Your task to perform on an android device: choose inbox layout in the gmail app Image 0: 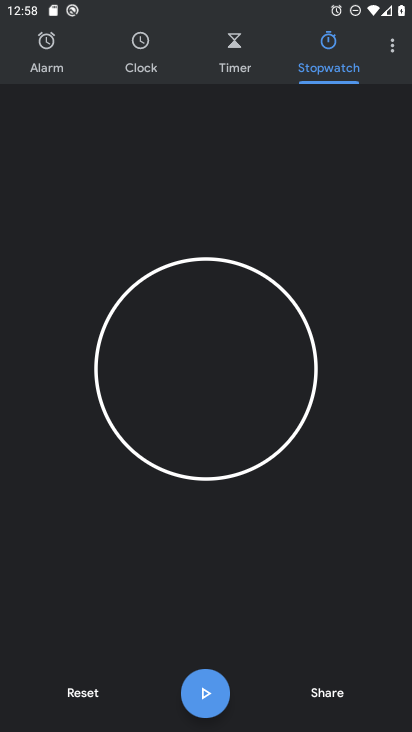
Step 0: press home button
Your task to perform on an android device: choose inbox layout in the gmail app Image 1: 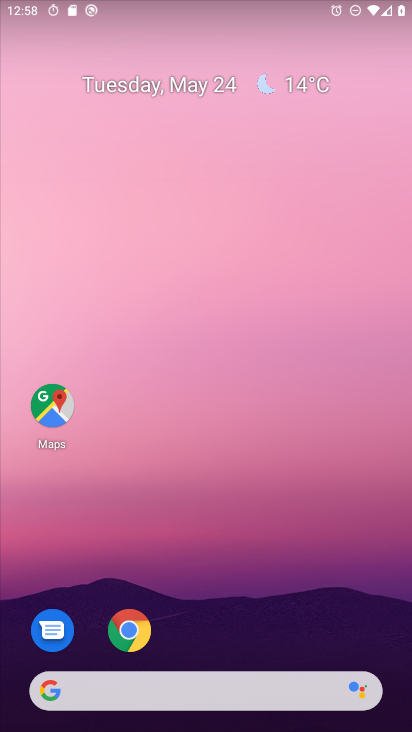
Step 1: drag from (371, 573) to (363, 69)
Your task to perform on an android device: choose inbox layout in the gmail app Image 2: 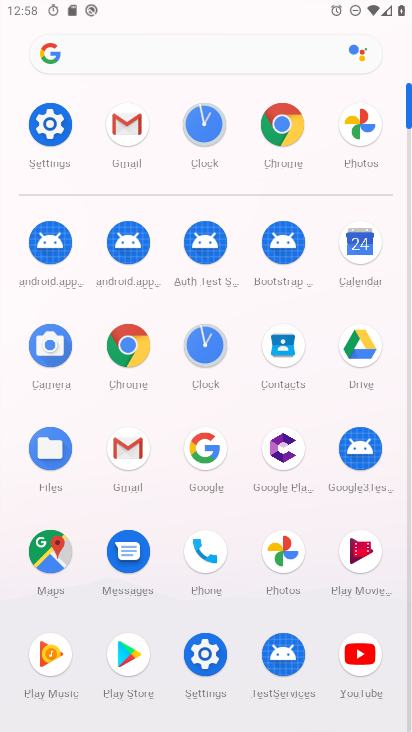
Step 2: click (136, 444)
Your task to perform on an android device: choose inbox layout in the gmail app Image 3: 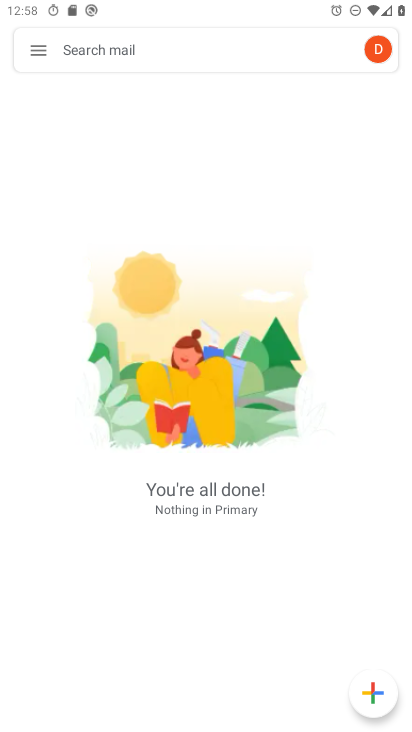
Step 3: click (35, 50)
Your task to perform on an android device: choose inbox layout in the gmail app Image 4: 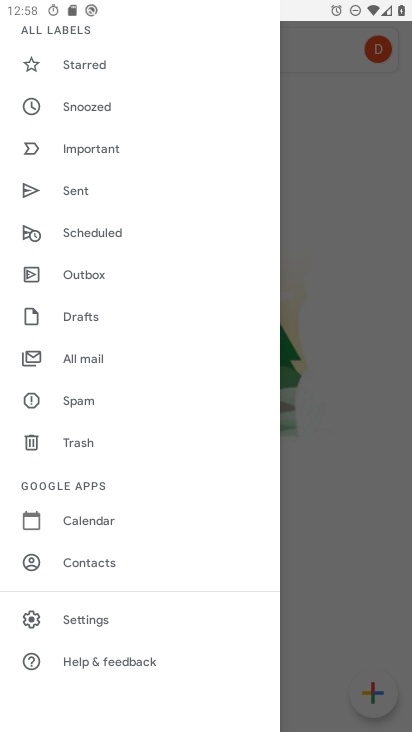
Step 4: click (115, 616)
Your task to perform on an android device: choose inbox layout in the gmail app Image 5: 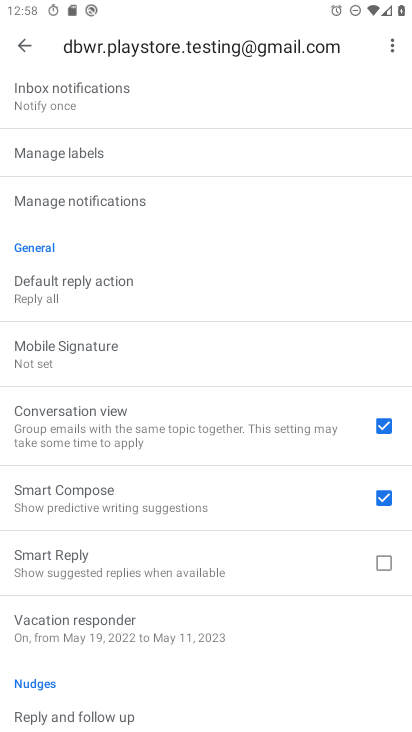
Step 5: drag from (155, 126) to (198, 563)
Your task to perform on an android device: choose inbox layout in the gmail app Image 6: 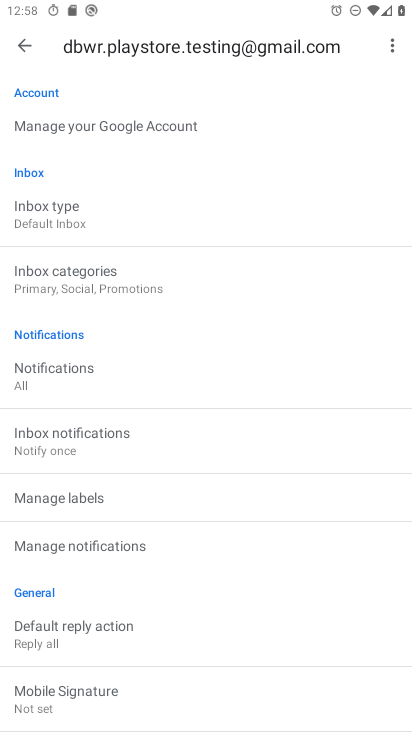
Step 6: drag from (179, 184) to (181, 478)
Your task to perform on an android device: choose inbox layout in the gmail app Image 7: 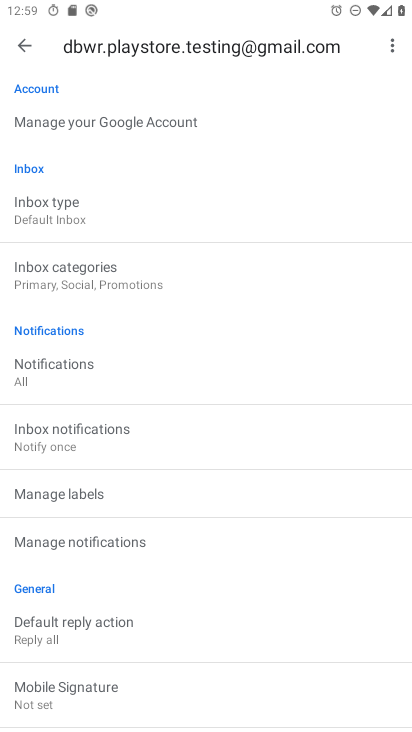
Step 7: click (68, 215)
Your task to perform on an android device: choose inbox layout in the gmail app Image 8: 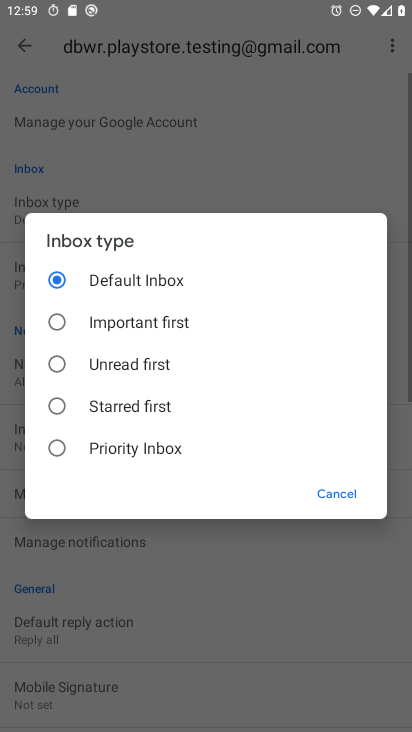
Step 8: click (92, 333)
Your task to perform on an android device: choose inbox layout in the gmail app Image 9: 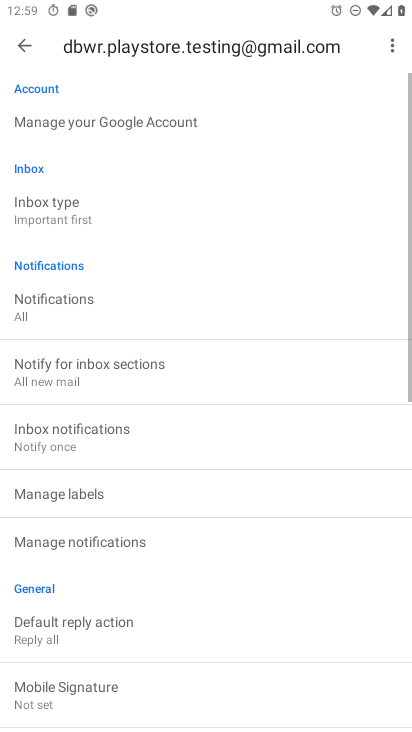
Step 9: task complete